Your task to perform on an android device: Go to network settings Image 0: 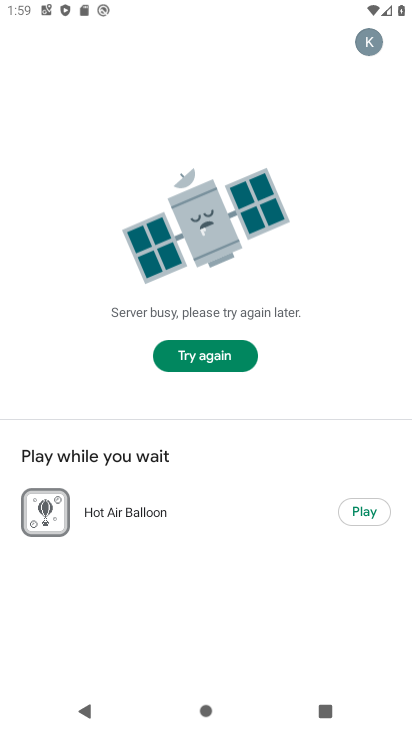
Step 0: press home button
Your task to perform on an android device: Go to network settings Image 1: 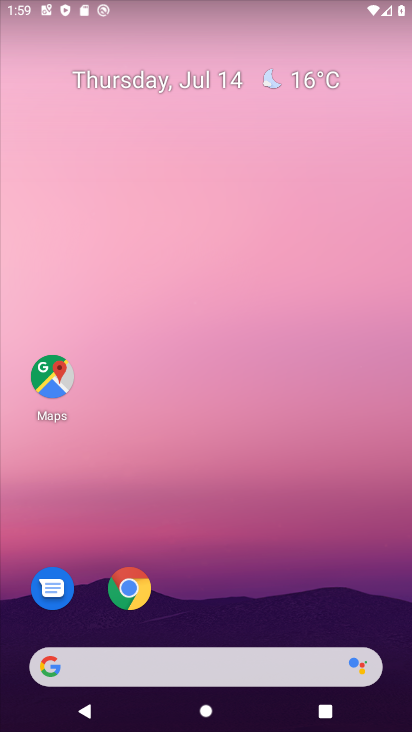
Step 1: drag from (250, 594) to (225, 129)
Your task to perform on an android device: Go to network settings Image 2: 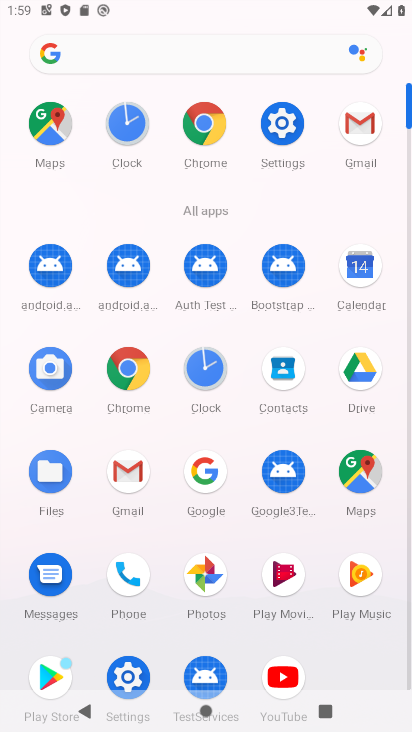
Step 2: click (128, 672)
Your task to perform on an android device: Go to network settings Image 3: 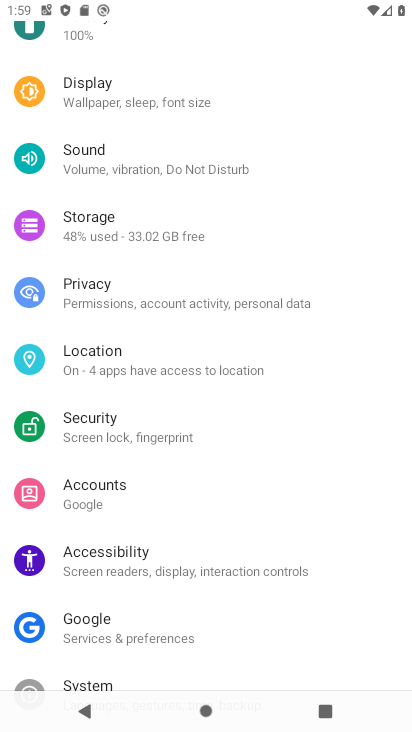
Step 3: drag from (137, 146) to (155, 496)
Your task to perform on an android device: Go to network settings Image 4: 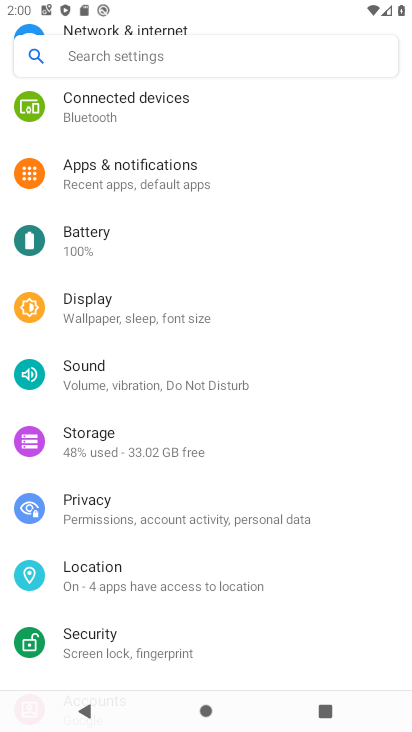
Step 4: drag from (174, 131) to (199, 476)
Your task to perform on an android device: Go to network settings Image 5: 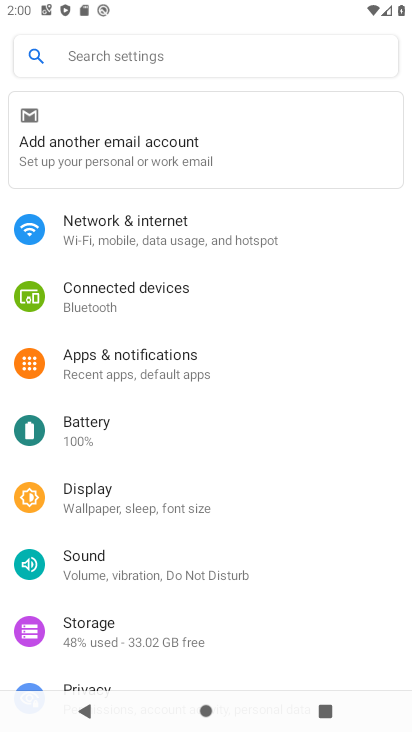
Step 5: click (182, 222)
Your task to perform on an android device: Go to network settings Image 6: 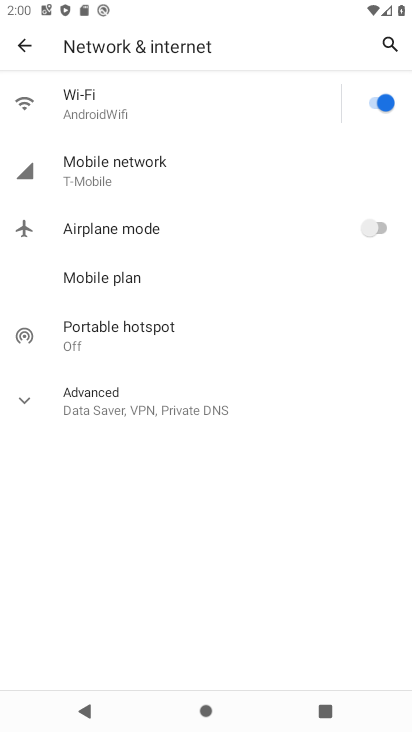
Step 6: click (133, 178)
Your task to perform on an android device: Go to network settings Image 7: 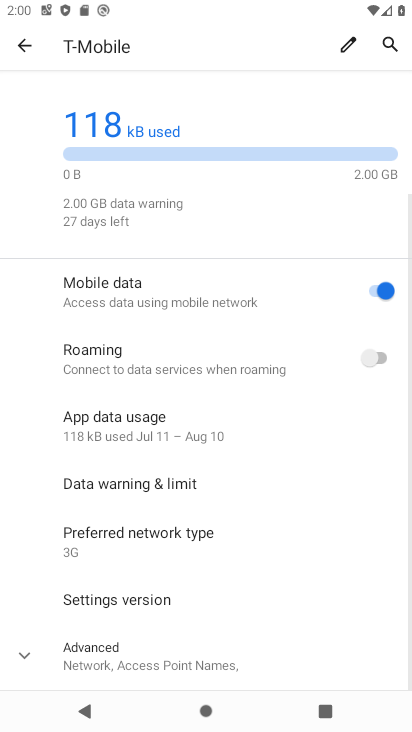
Step 7: task complete